Your task to perform on an android device: toggle translation in the chrome app Image 0: 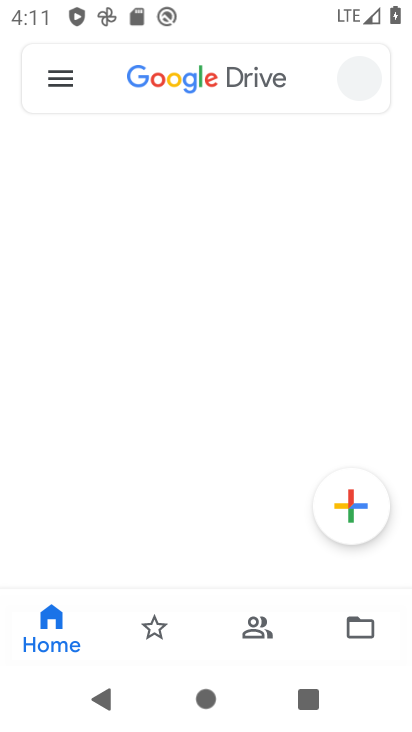
Step 0: drag from (161, 509) to (222, 102)
Your task to perform on an android device: toggle translation in the chrome app Image 1: 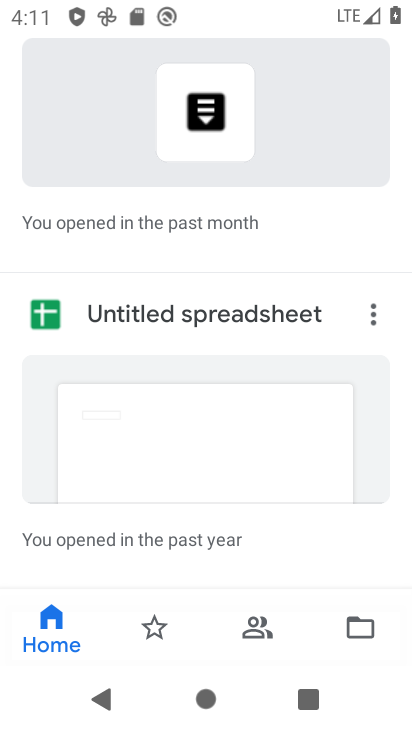
Step 1: press home button
Your task to perform on an android device: toggle translation in the chrome app Image 2: 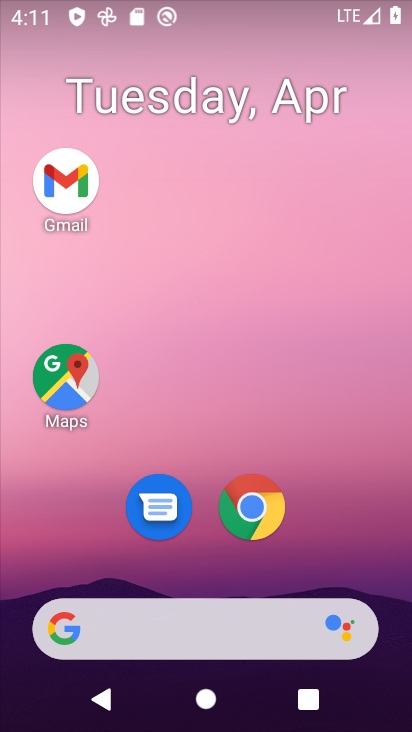
Step 2: click (252, 503)
Your task to perform on an android device: toggle translation in the chrome app Image 3: 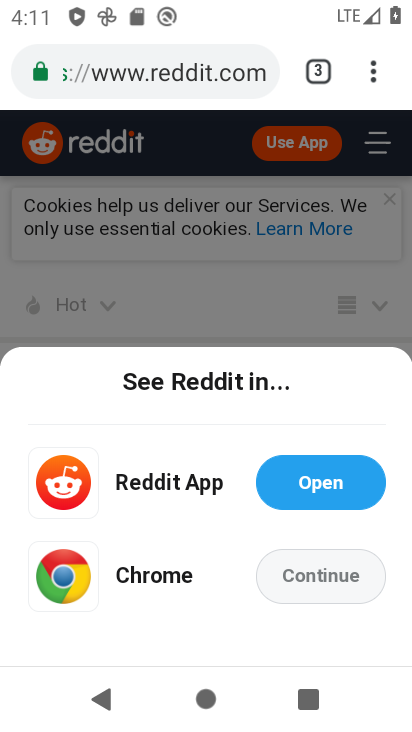
Step 3: click (376, 74)
Your task to perform on an android device: toggle translation in the chrome app Image 4: 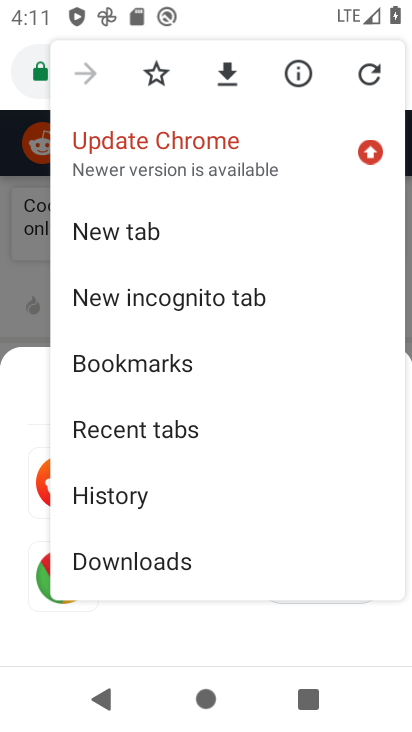
Step 4: drag from (203, 440) to (227, 64)
Your task to perform on an android device: toggle translation in the chrome app Image 5: 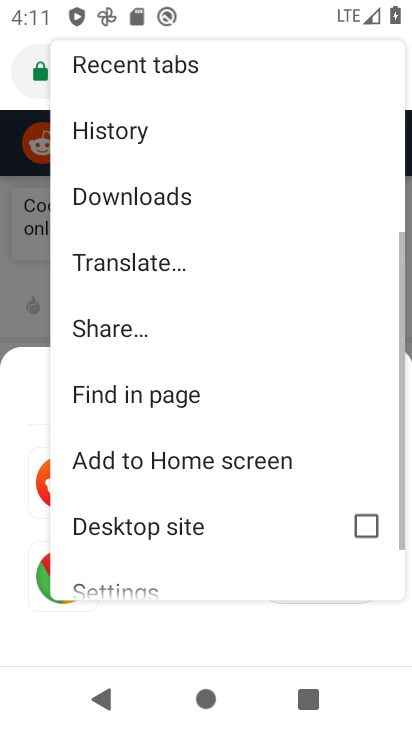
Step 5: click (186, 573)
Your task to perform on an android device: toggle translation in the chrome app Image 6: 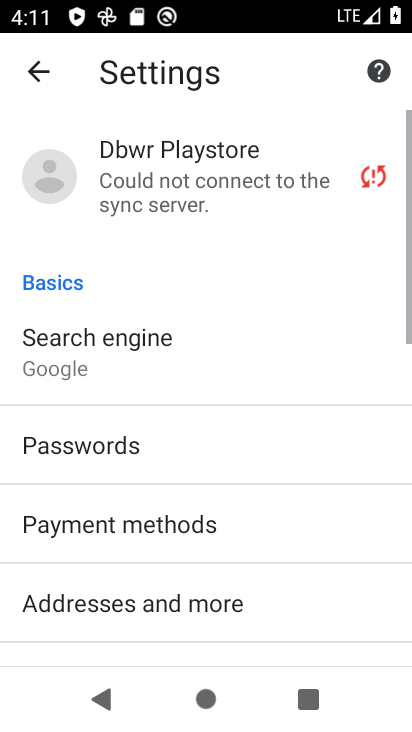
Step 6: drag from (186, 573) to (237, 43)
Your task to perform on an android device: toggle translation in the chrome app Image 7: 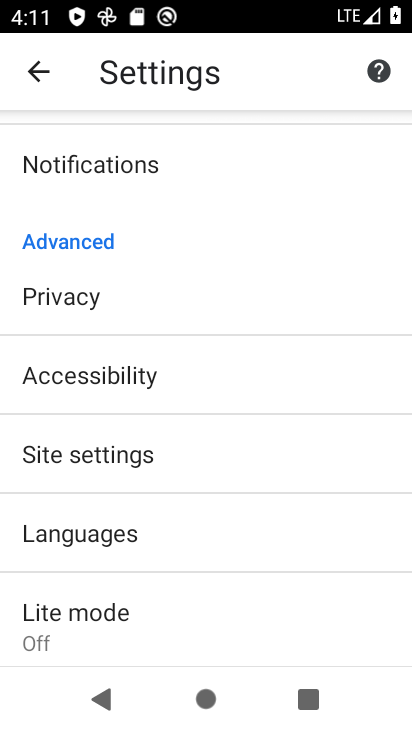
Step 7: click (134, 518)
Your task to perform on an android device: toggle translation in the chrome app Image 8: 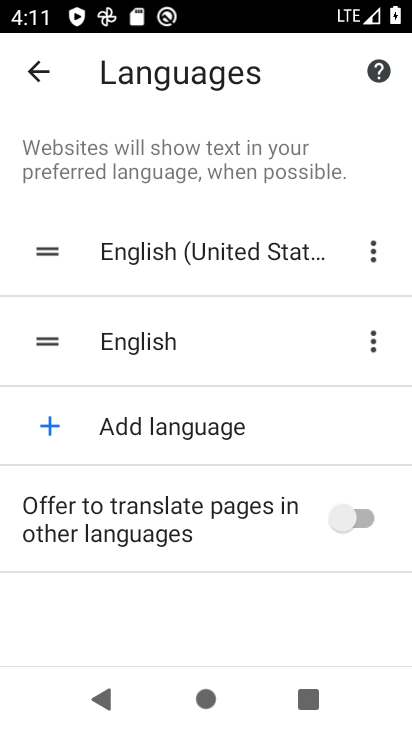
Step 8: click (342, 523)
Your task to perform on an android device: toggle translation in the chrome app Image 9: 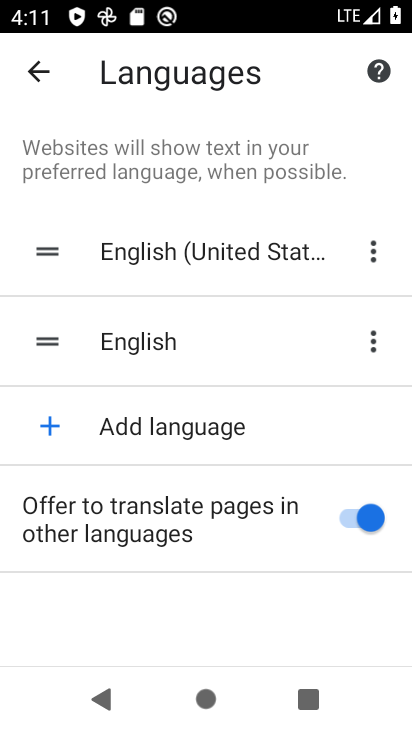
Step 9: task complete